Your task to perform on an android device: change the clock style Image 0: 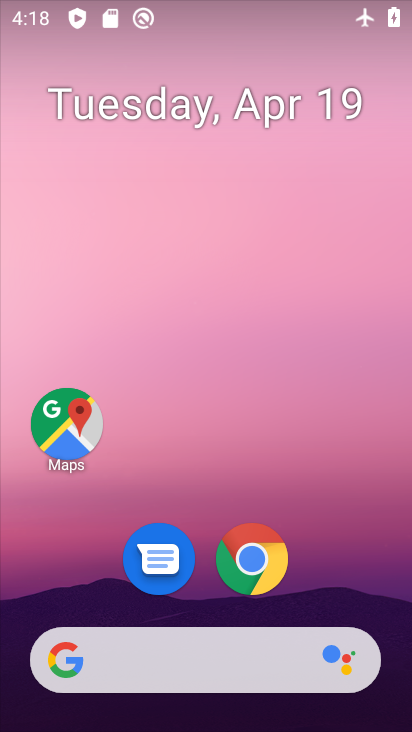
Step 0: drag from (325, 580) to (214, 142)
Your task to perform on an android device: change the clock style Image 1: 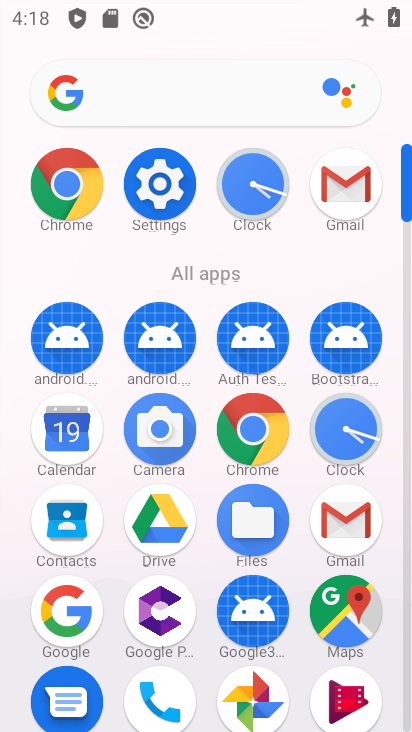
Step 1: click (250, 185)
Your task to perform on an android device: change the clock style Image 2: 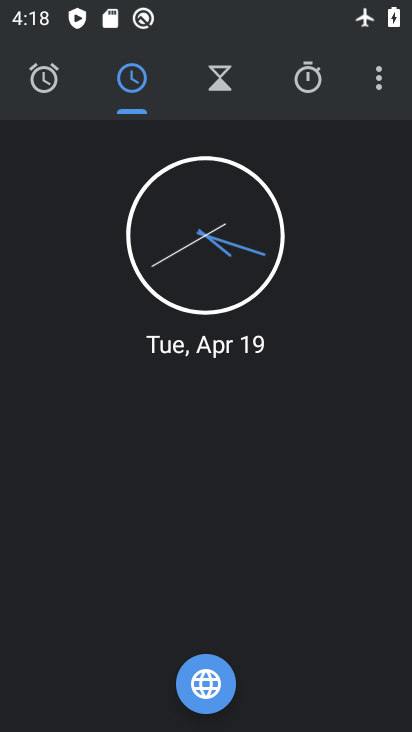
Step 2: click (381, 73)
Your task to perform on an android device: change the clock style Image 3: 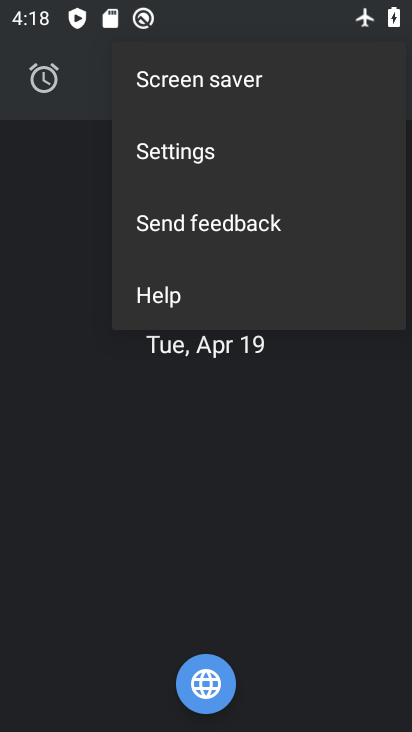
Step 3: click (314, 156)
Your task to perform on an android device: change the clock style Image 4: 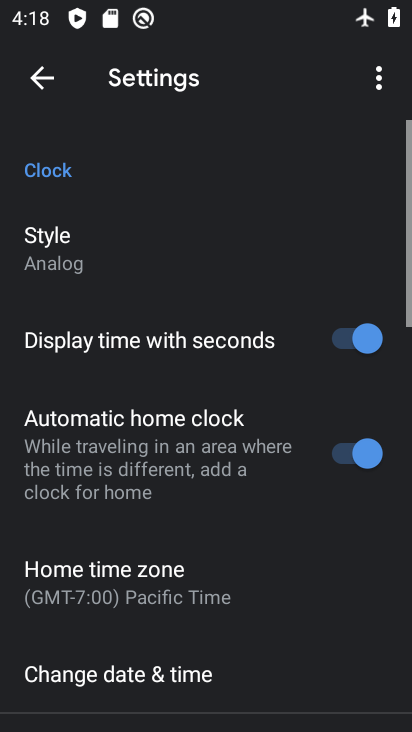
Step 4: click (183, 266)
Your task to perform on an android device: change the clock style Image 5: 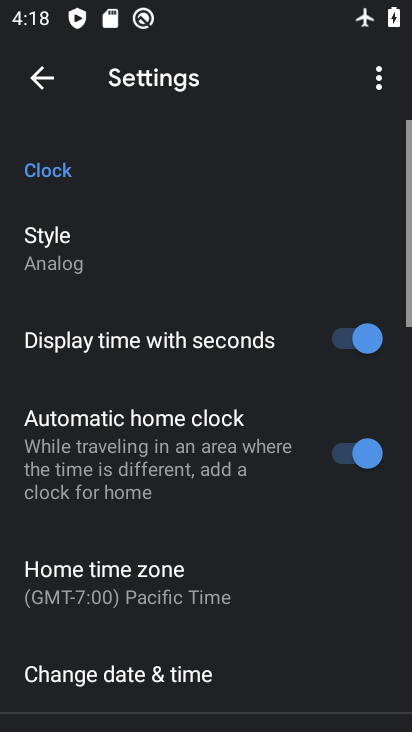
Step 5: click (183, 266)
Your task to perform on an android device: change the clock style Image 6: 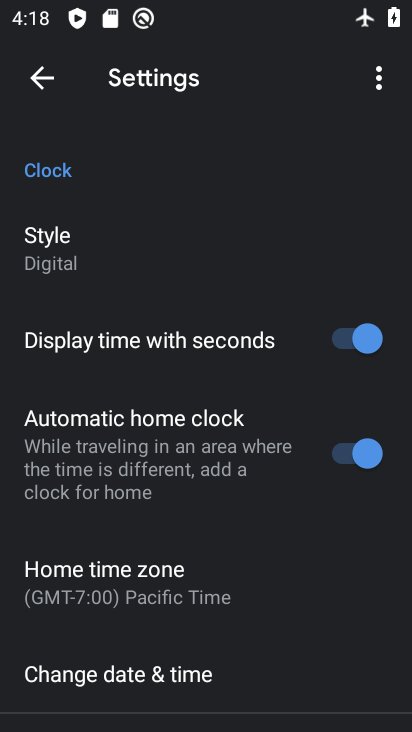
Step 6: task complete